Your task to perform on an android device: turn on javascript in the chrome app Image 0: 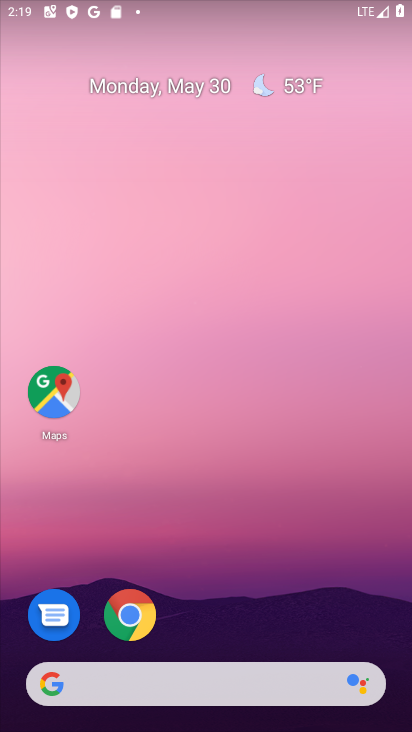
Step 0: click (130, 611)
Your task to perform on an android device: turn on javascript in the chrome app Image 1: 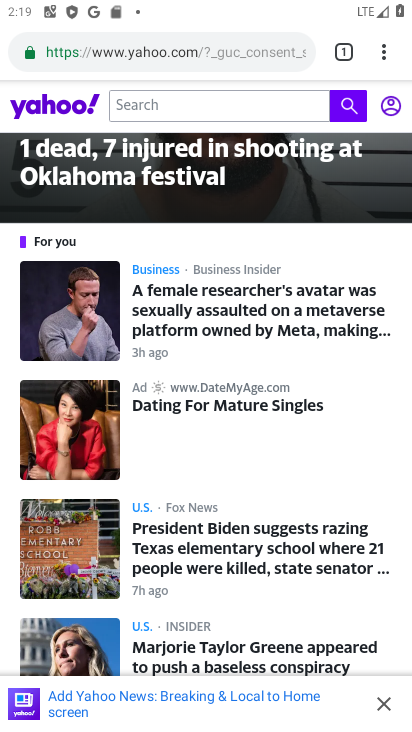
Step 1: click (370, 58)
Your task to perform on an android device: turn on javascript in the chrome app Image 2: 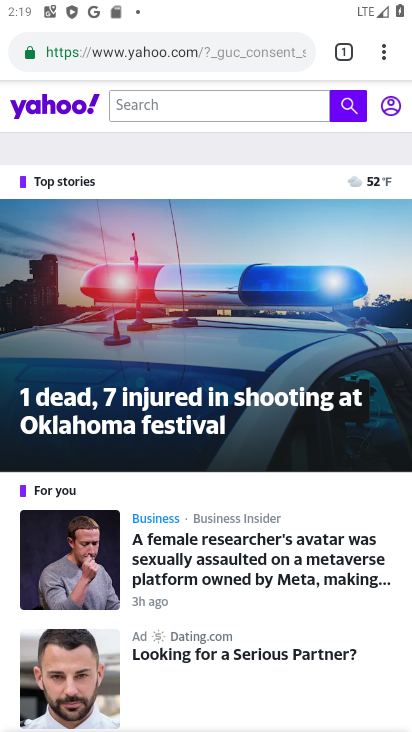
Step 2: click (381, 62)
Your task to perform on an android device: turn on javascript in the chrome app Image 3: 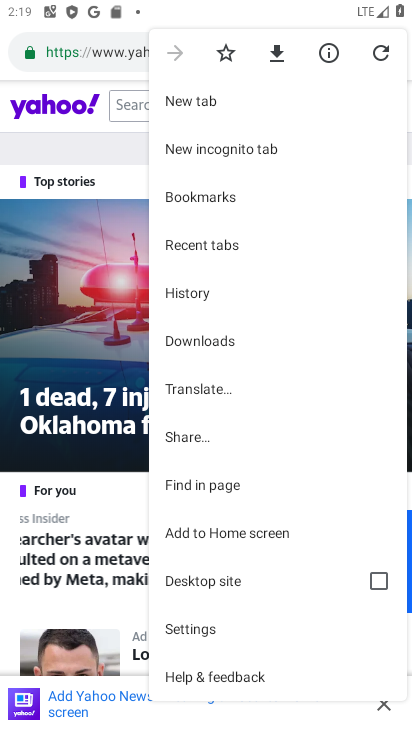
Step 3: click (199, 623)
Your task to perform on an android device: turn on javascript in the chrome app Image 4: 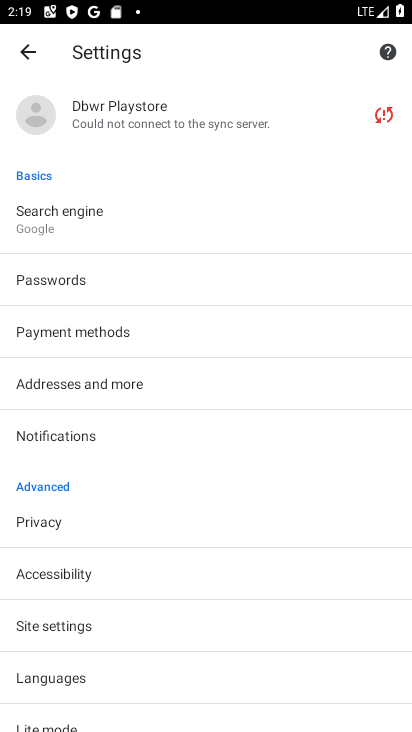
Step 4: click (87, 616)
Your task to perform on an android device: turn on javascript in the chrome app Image 5: 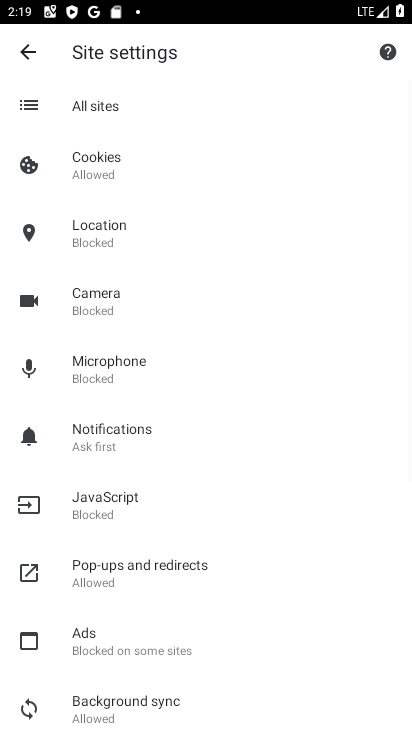
Step 5: click (108, 501)
Your task to perform on an android device: turn on javascript in the chrome app Image 6: 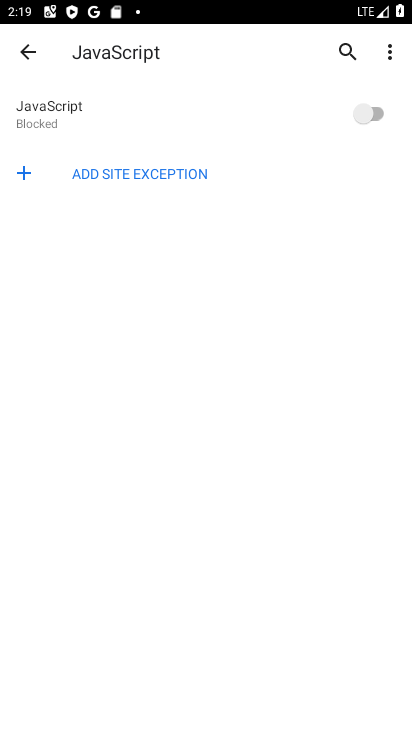
Step 6: click (356, 114)
Your task to perform on an android device: turn on javascript in the chrome app Image 7: 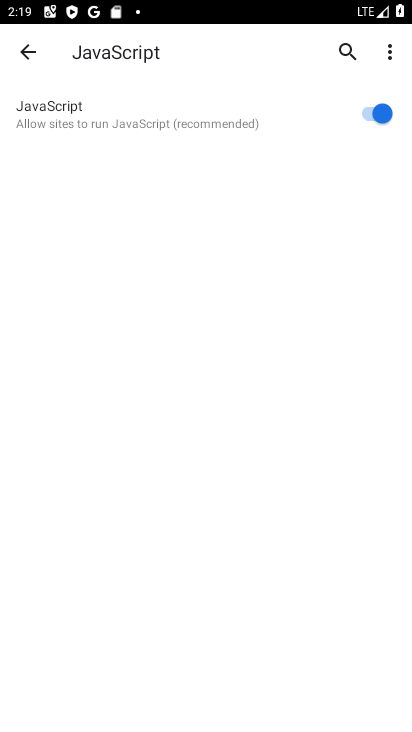
Step 7: task complete